Your task to perform on an android device: Open Youtube and go to the subscriptions tab Image 0: 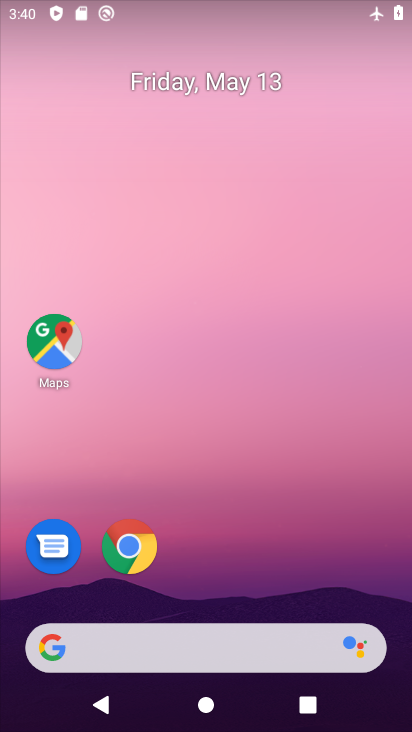
Step 0: drag from (221, 693) to (221, 172)
Your task to perform on an android device: Open Youtube and go to the subscriptions tab Image 1: 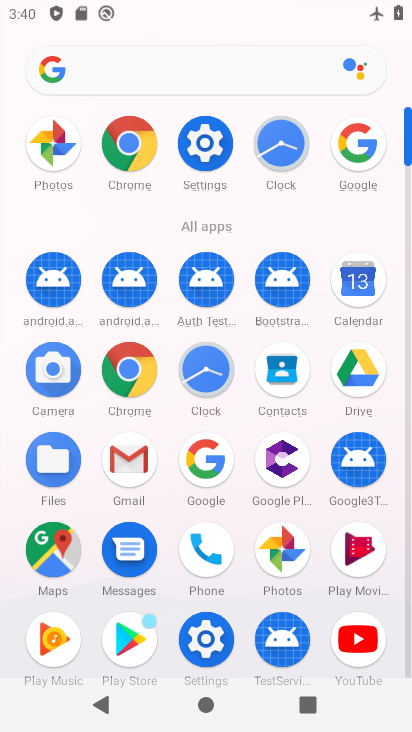
Step 1: click (356, 629)
Your task to perform on an android device: Open Youtube and go to the subscriptions tab Image 2: 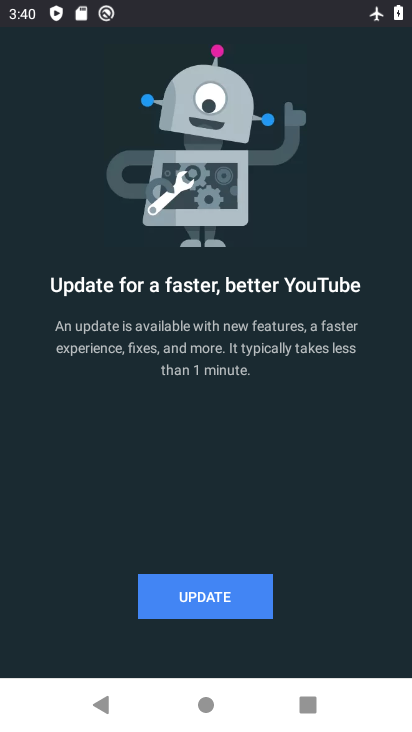
Step 2: task complete